Your task to perform on an android device: Turn on the flashlight Image 0: 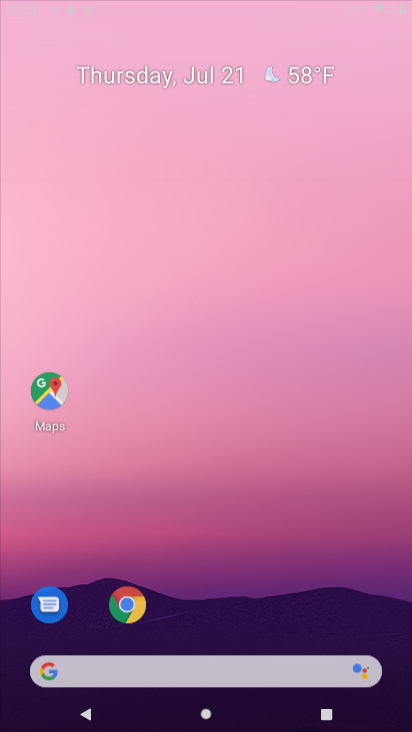
Step 0: press home button
Your task to perform on an android device: Turn on the flashlight Image 1: 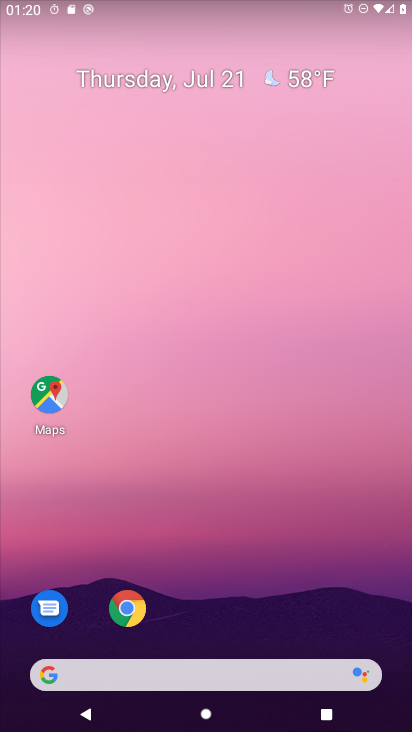
Step 1: task complete